Your task to perform on an android device: Open Google Maps and go to "Timeline" Image 0: 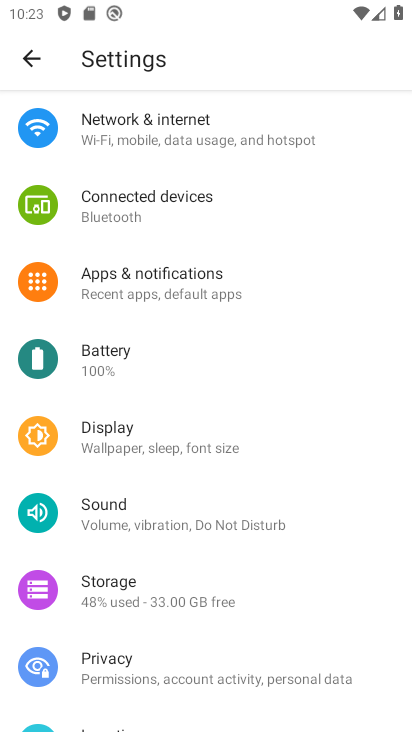
Step 0: press home button
Your task to perform on an android device: Open Google Maps and go to "Timeline" Image 1: 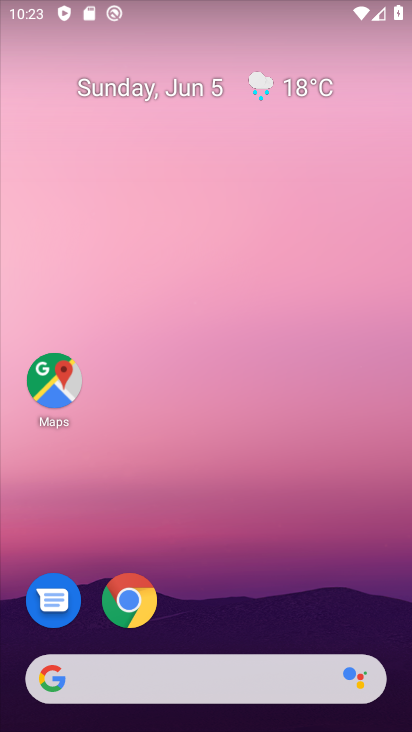
Step 1: click (38, 401)
Your task to perform on an android device: Open Google Maps and go to "Timeline" Image 2: 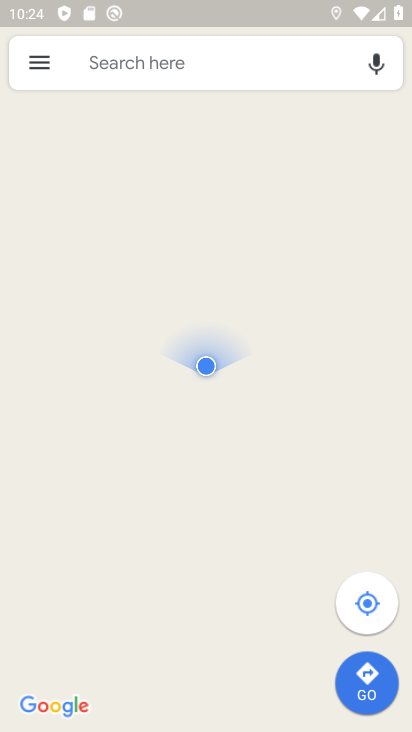
Step 2: click (33, 61)
Your task to perform on an android device: Open Google Maps and go to "Timeline" Image 3: 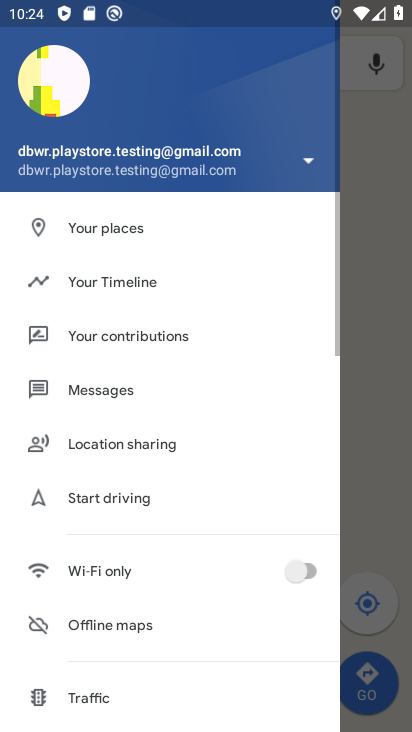
Step 3: click (137, 290)
Your task to perform on an android device: Open Google Maps and go to "Timeline" Image 4: 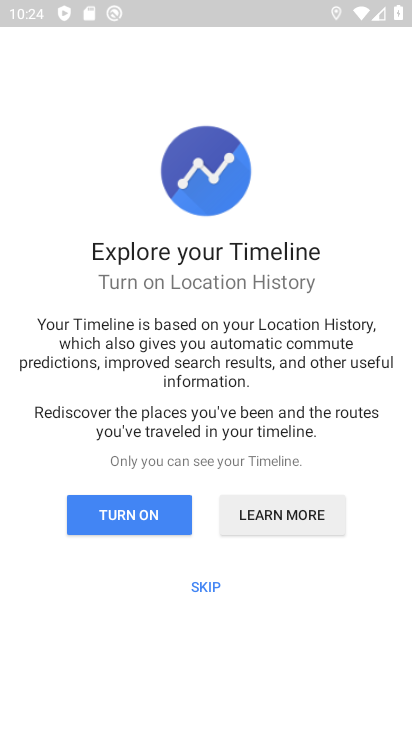
Step 4: click (158, 517)
Your task to perform on an android device: Open Google Maps and go to "Timeline" Image 5: 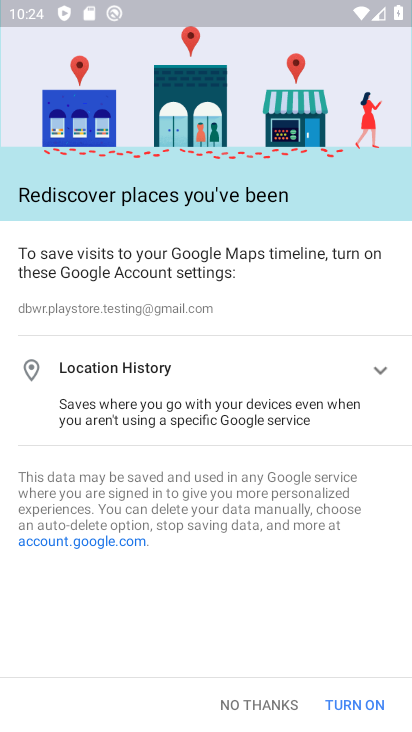
Step 5: click (350, 703)
Your task to perform on an android device: Open Google Maps and go to "Timeline" Image 6: 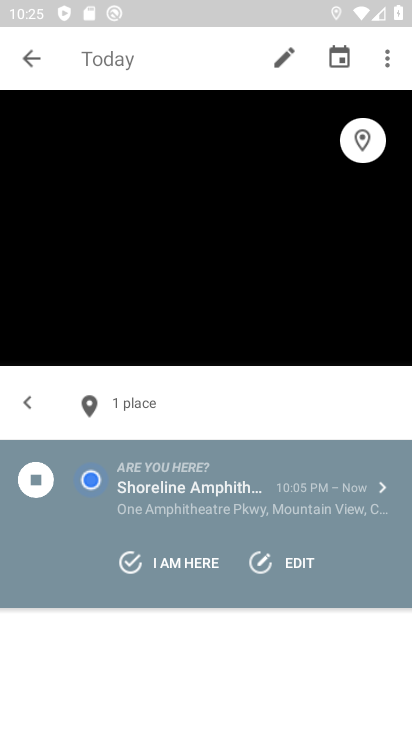
Step 6: task complete